Your task to perform on an android device: remove spam from my inbox in the gmail app Image 0: 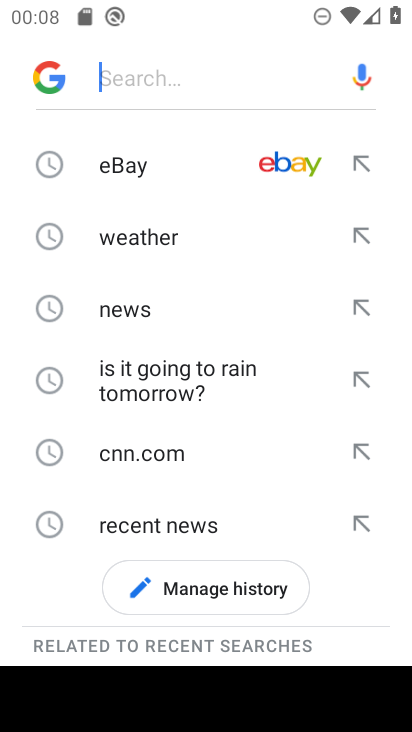
Step 0: press home button
Your task to perform on an android device: remove spam from my inbox in the gmail app Image 1: 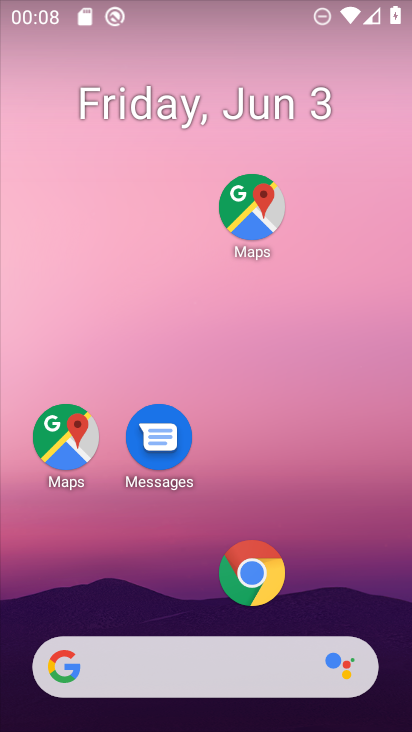
Step 1: drag from (333, 589) to (263, 107)
Your task to perform on an android device: remove spam from my inbox in the gmail app Image 2: 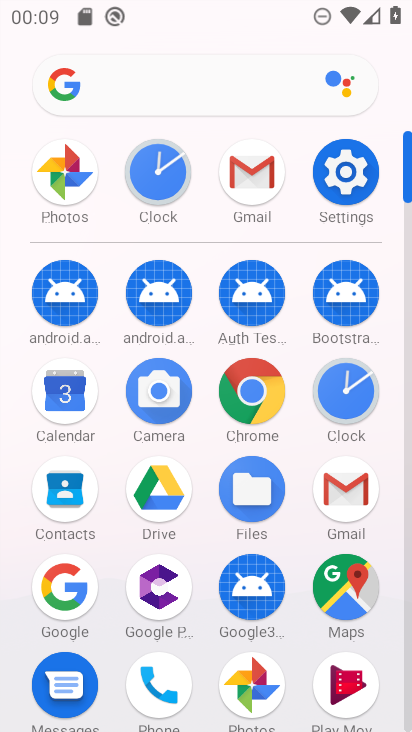
Step 2: click (260, 177)
Your task to perform on an android device: remove spam from my inbox in the gmail app Image 3: 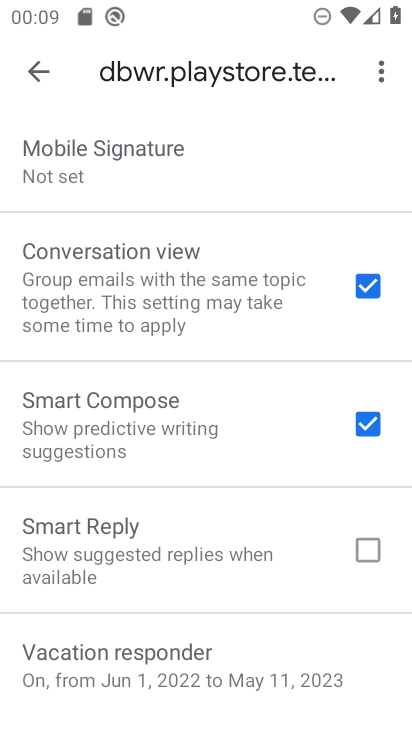
Step 3: click (37, 65)
Your task to perform on an android device: remove spam from my inbox in the gmail app Image 4: 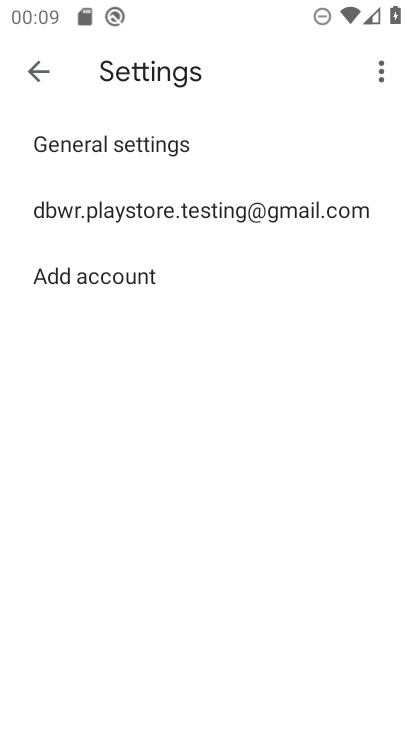
Step 4: click (37, 65)
Your task to perform on an android device: remove spam from my inbox in the gmail app Image 5: 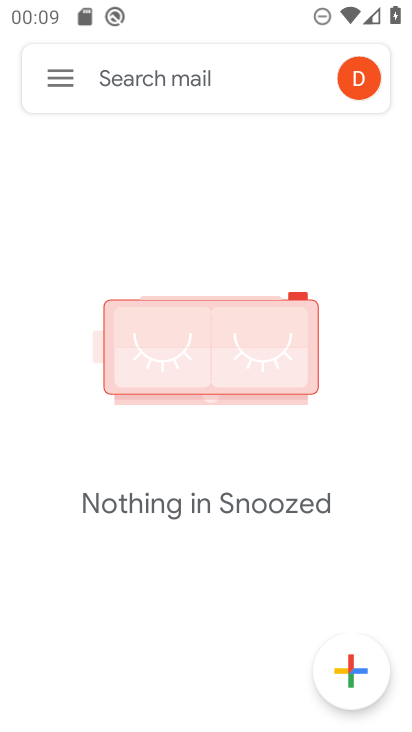
Step 5: click (56, 76)
Your task to perform on an android device: remove spam from my inbox in the gmail app Image 6: 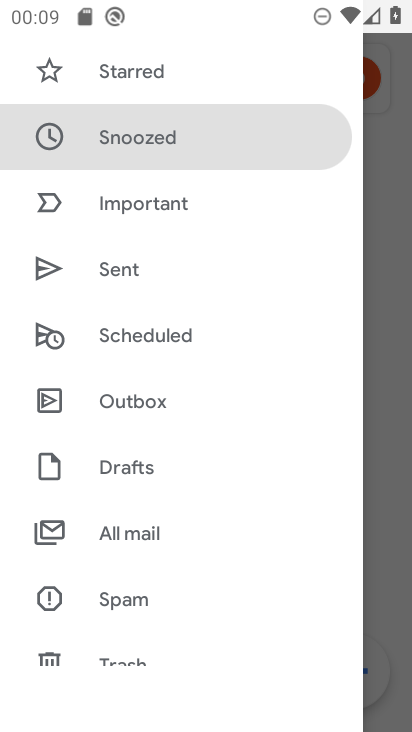
Step 6: click (130, 597)
Your task to perform on an android device: remove spam from my inbox in the gmail app Image 7: 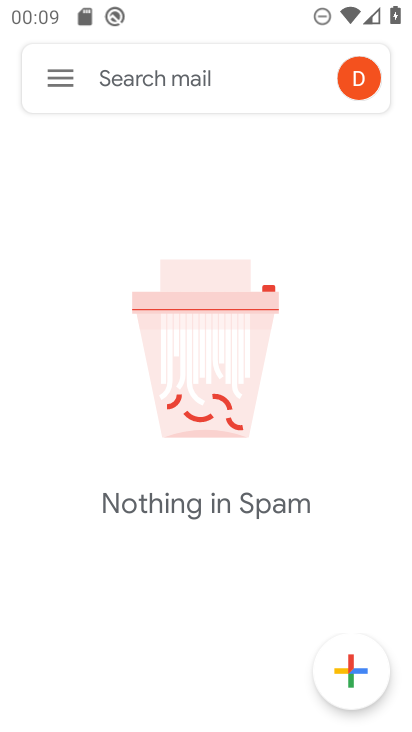
Step 7: task complete